Your task to perform on an android device: install app "Messages" Image 0: 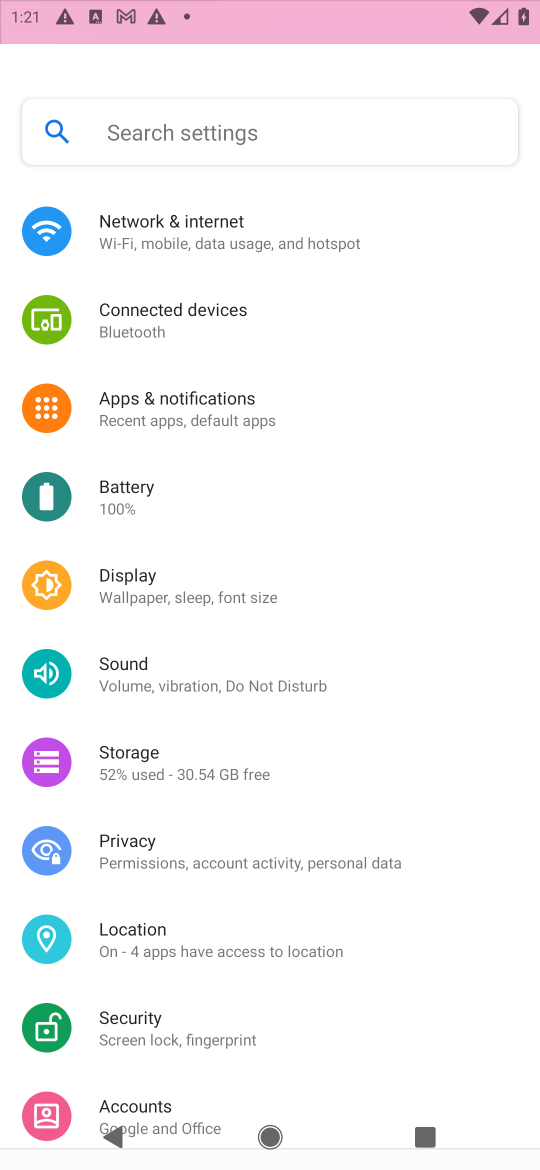
Step 0: press home button
Your task to perform on an android device: install app "Messages" Image 1: 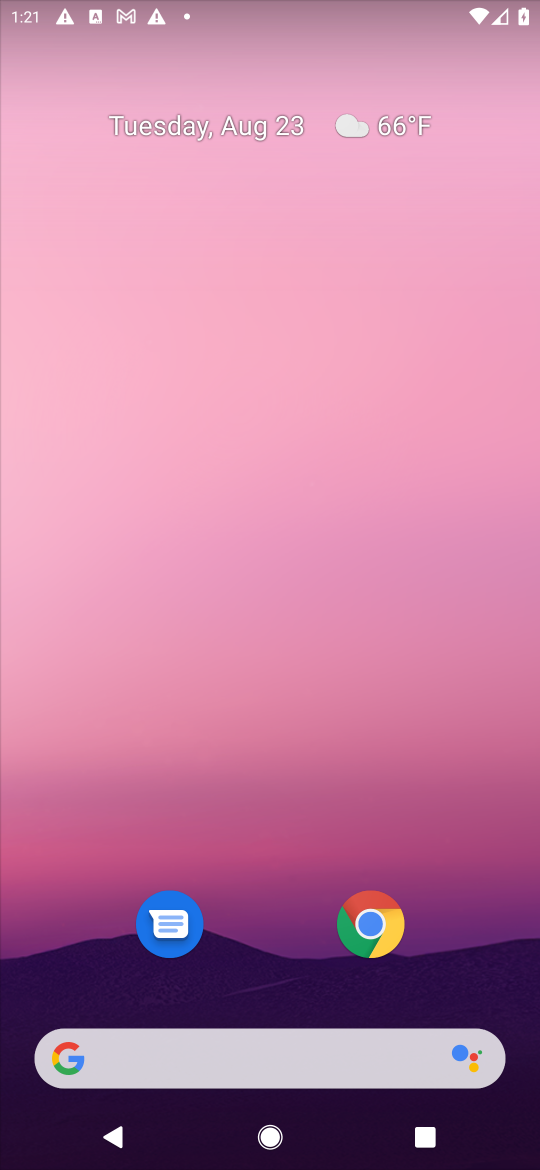
Step 1: drag from (438, 926) to (450, 85)
Your task to perform on an android device: install app "Messages" Image 2: 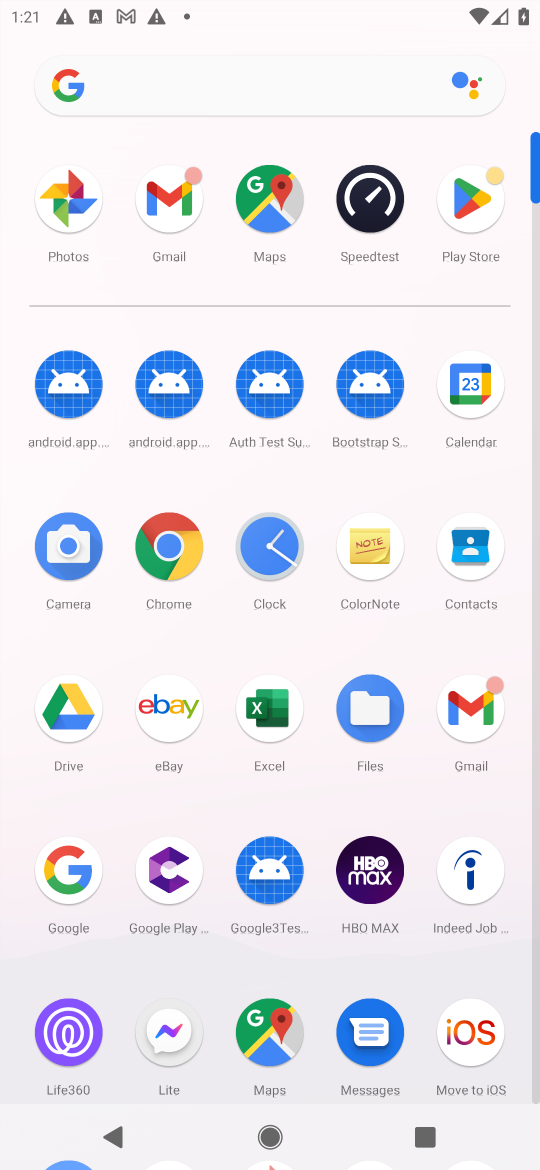
Step 2: click (476, 191)
Your task to perform on an android device: install app "Messages" Image 3: 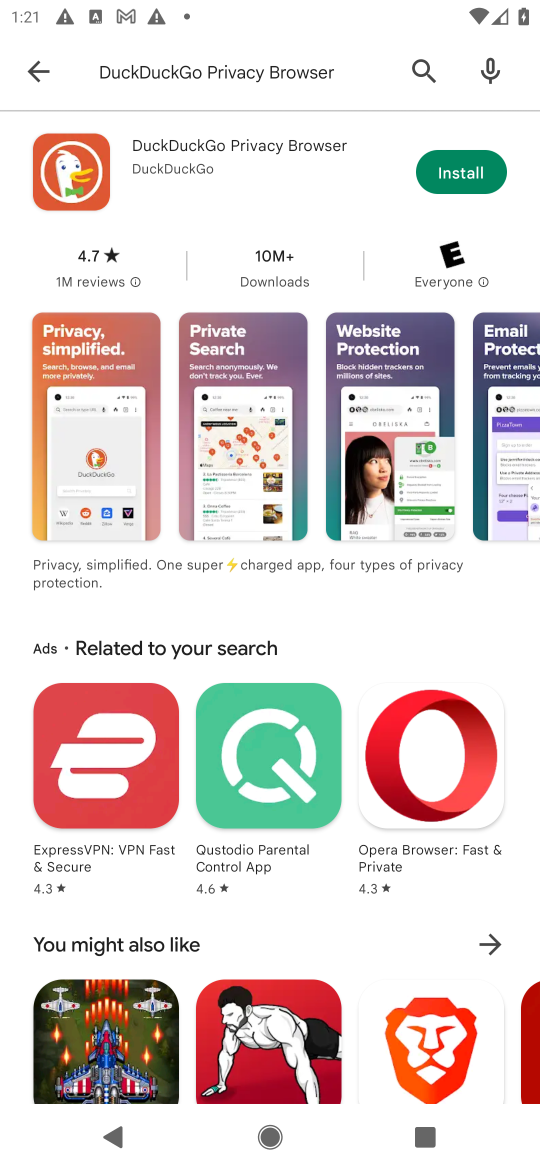
Step 3: press back button
Your task to perform on an android device: install app "Messages" Image 4: 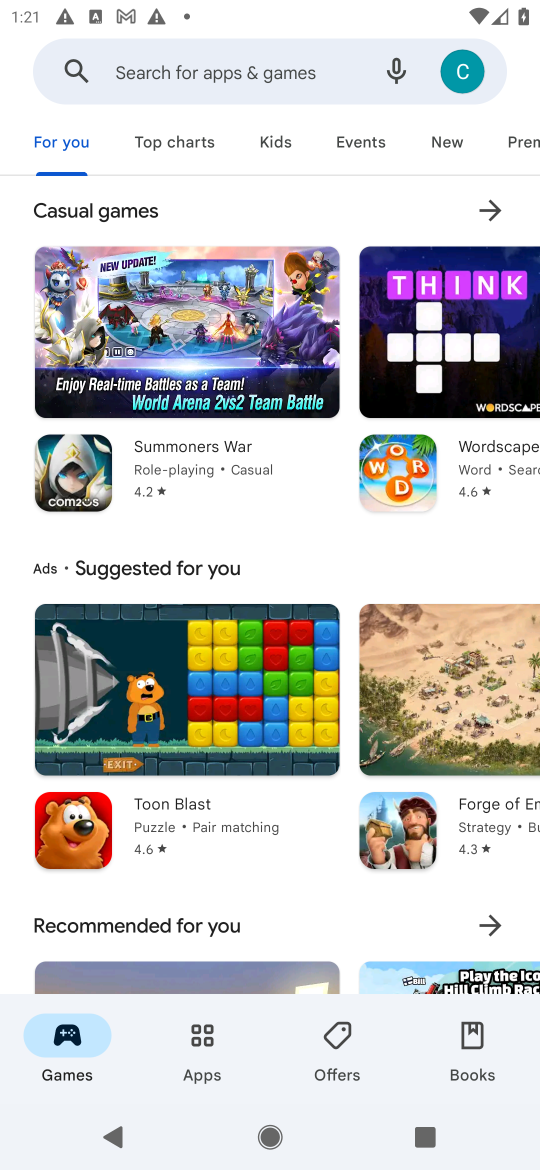
Step 4: click (252, 67)
Your task to perform on an android device: install app "Messages" Image 5: 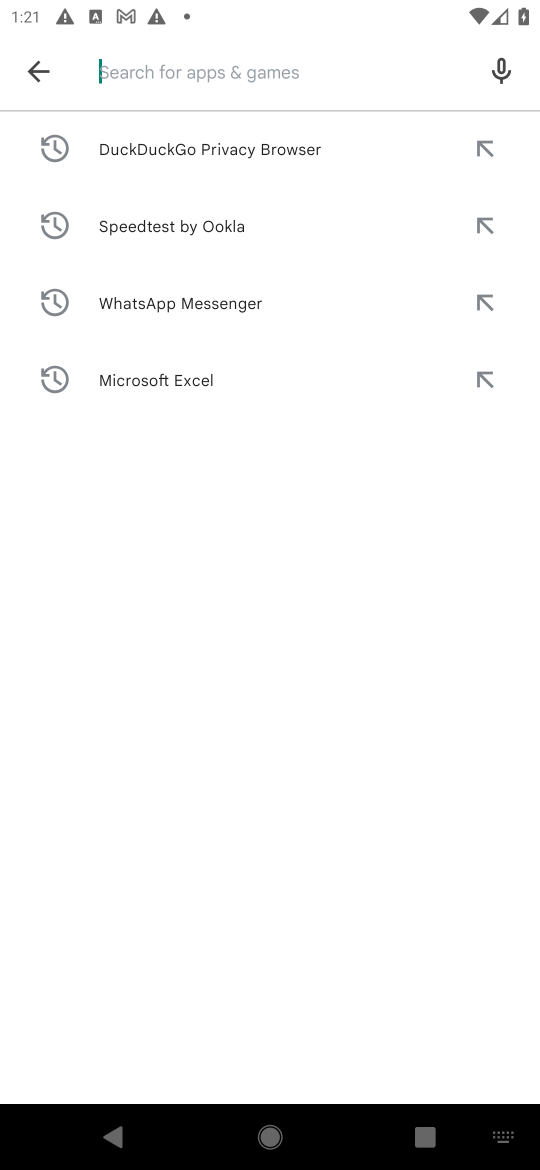
Step 5: press enter
Your task to perform on an android device: install app "Messages" Image 6: 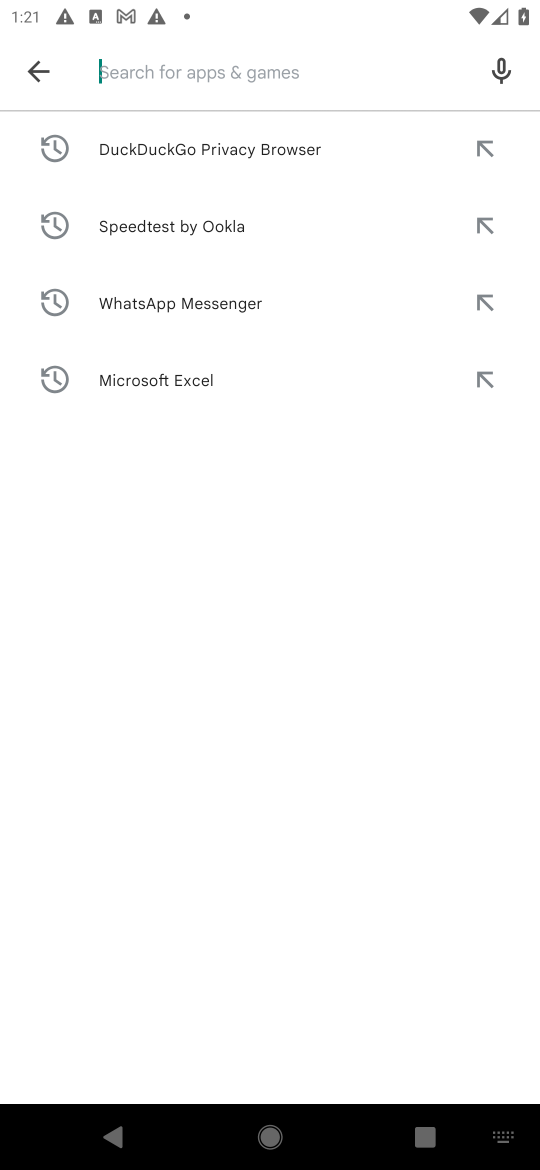
Step 6: type "messages"
Your task to perform on an android device: install app "Messages" Image 7: 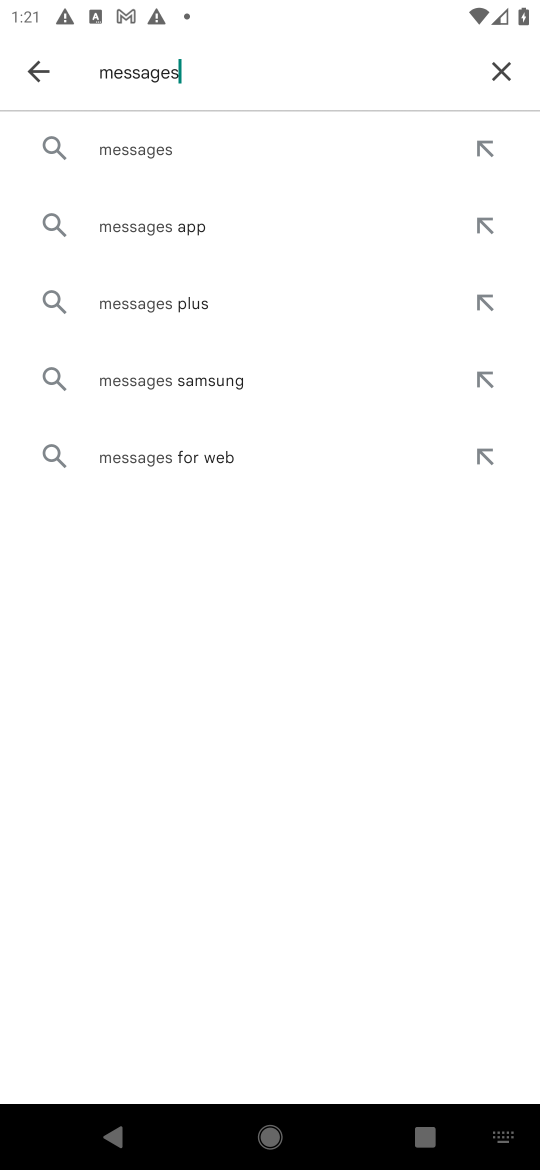
Step 7: click (166, 148)
Your task to perform on an android device: install app "Messages" Image 8: 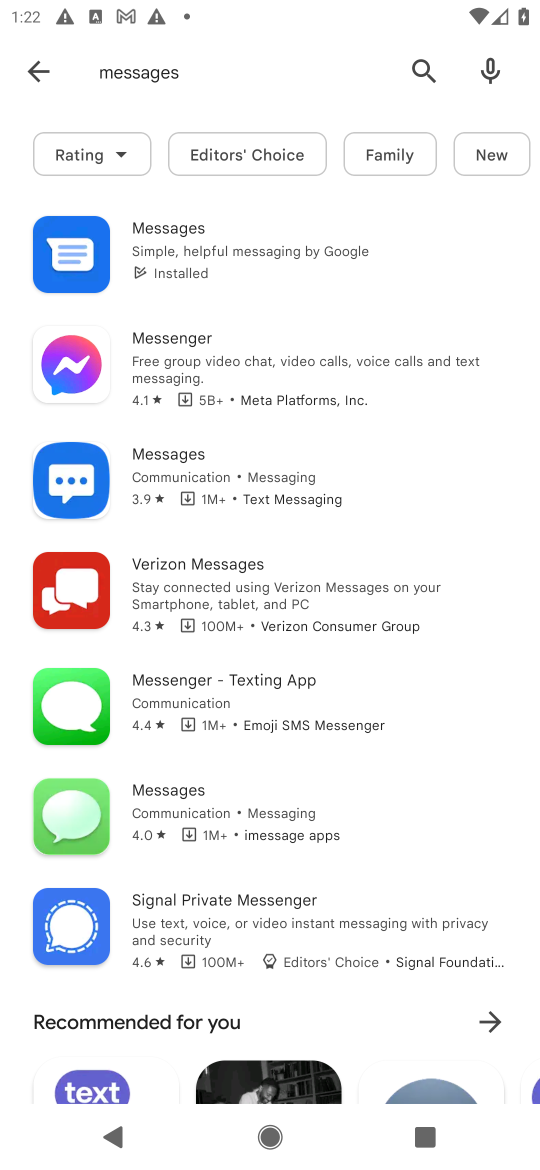
Step 8: click (217, 248)
Your task to perform on an android device: install app "Messages" Image 9: 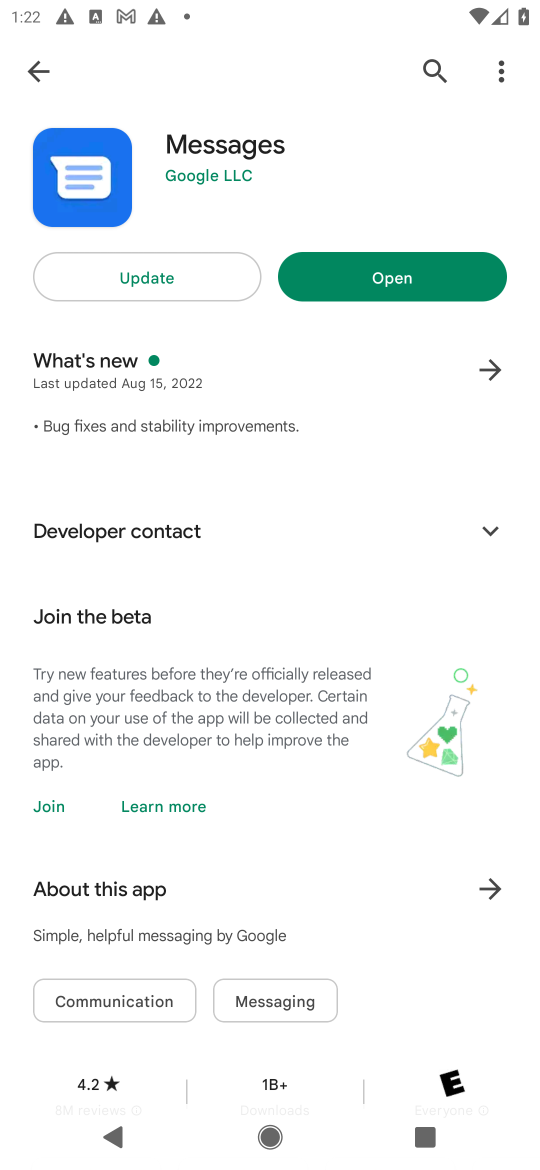
Step 9: task complete